Your task to perform on an android device: Open Maps and search for coffee Image 0: 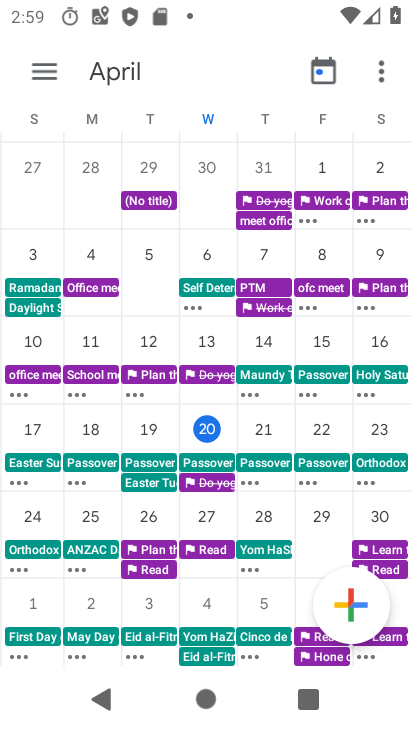
Step 0: press home button
Your task to perform on an android device: Open Maps and search for coffee Image 1: 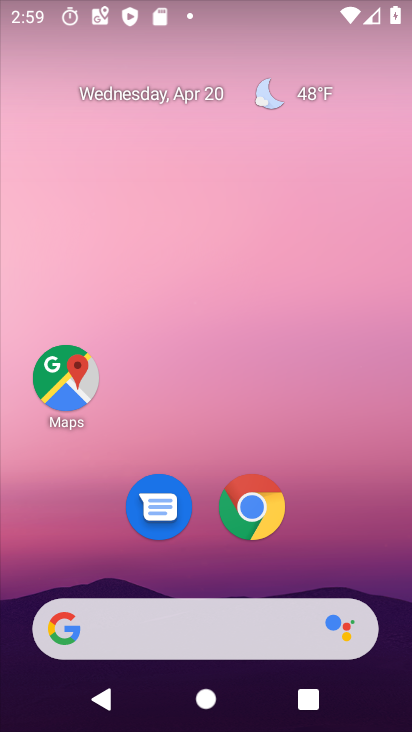
Step 1: drag from (213, 583) to (152, 9)
Your task to perform on an android device: Open Maps and search for coffee Image 2: 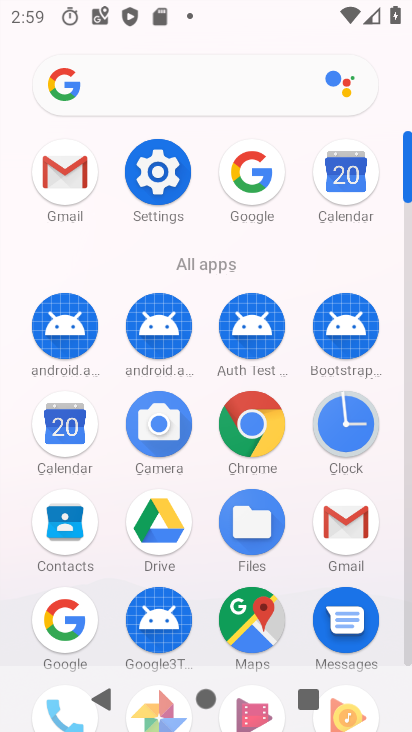
Step 2: click (267, 634)
Your task to perform on an android device: Open Maps and search for coffee Image 3: 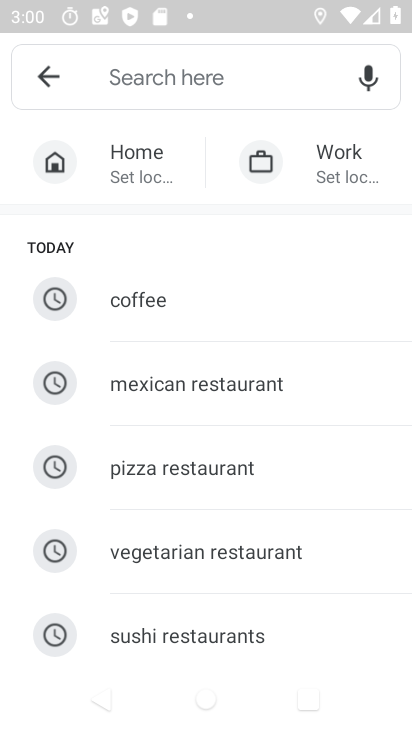
Step 3: click (148, 313)
Your task to perform on an android device: Open Maps and search for coffee Image 4: 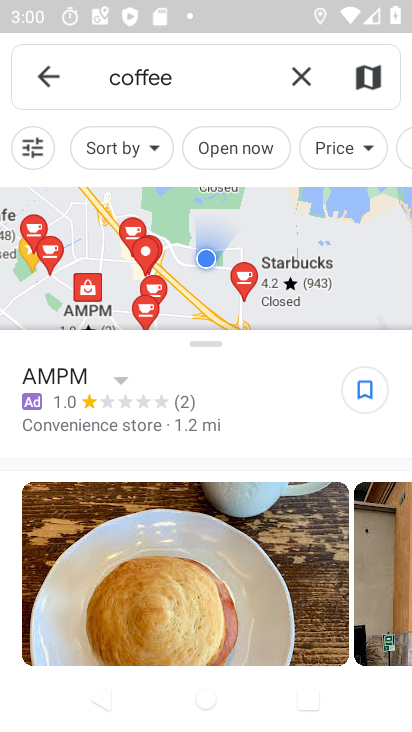
Step 4: task complete